Your task to perform on an android device: see tabs open on other devices in the chrome app Image 0: 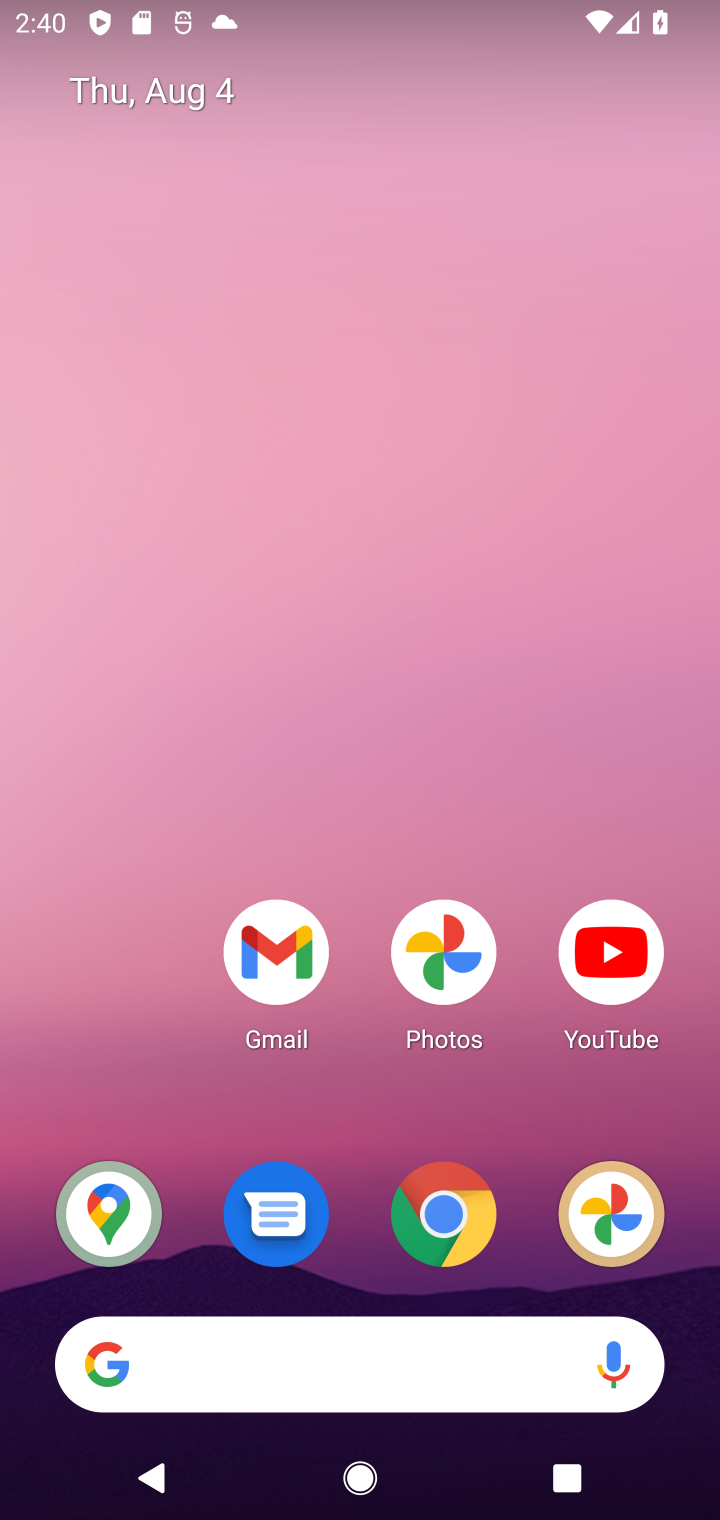
Step 0: drag from (155, 846) to (147, 58)
Your task to perform on an android device: see tabs open on other devices in the chrome app Image 1: 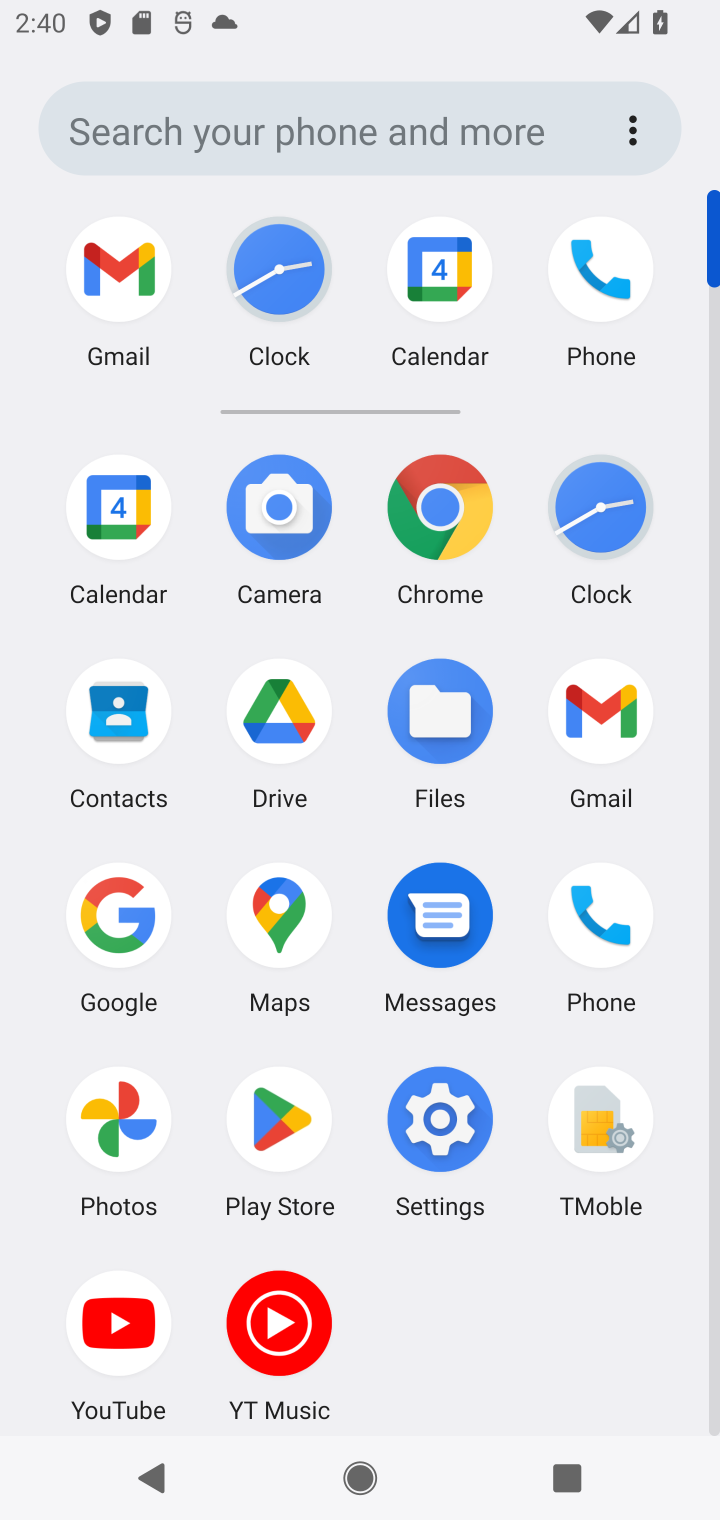
Step 1: click (438, 510)
Your task to perform on an android device: see tabs open on other devices in the chrome app Image 2: 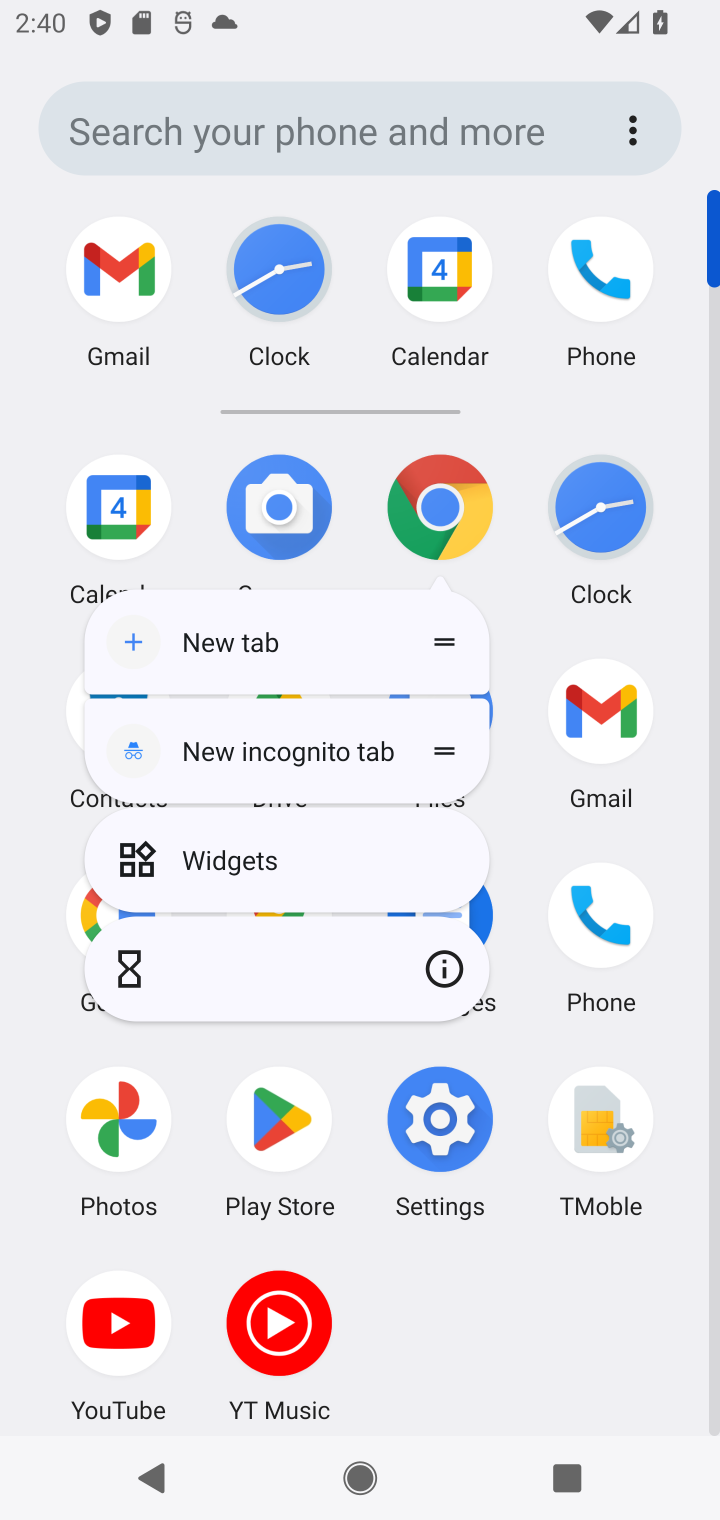
Step 2: click (438, 510)
Your task to perform on an android device: see tabs open on other devices in the chrome app Image 3: 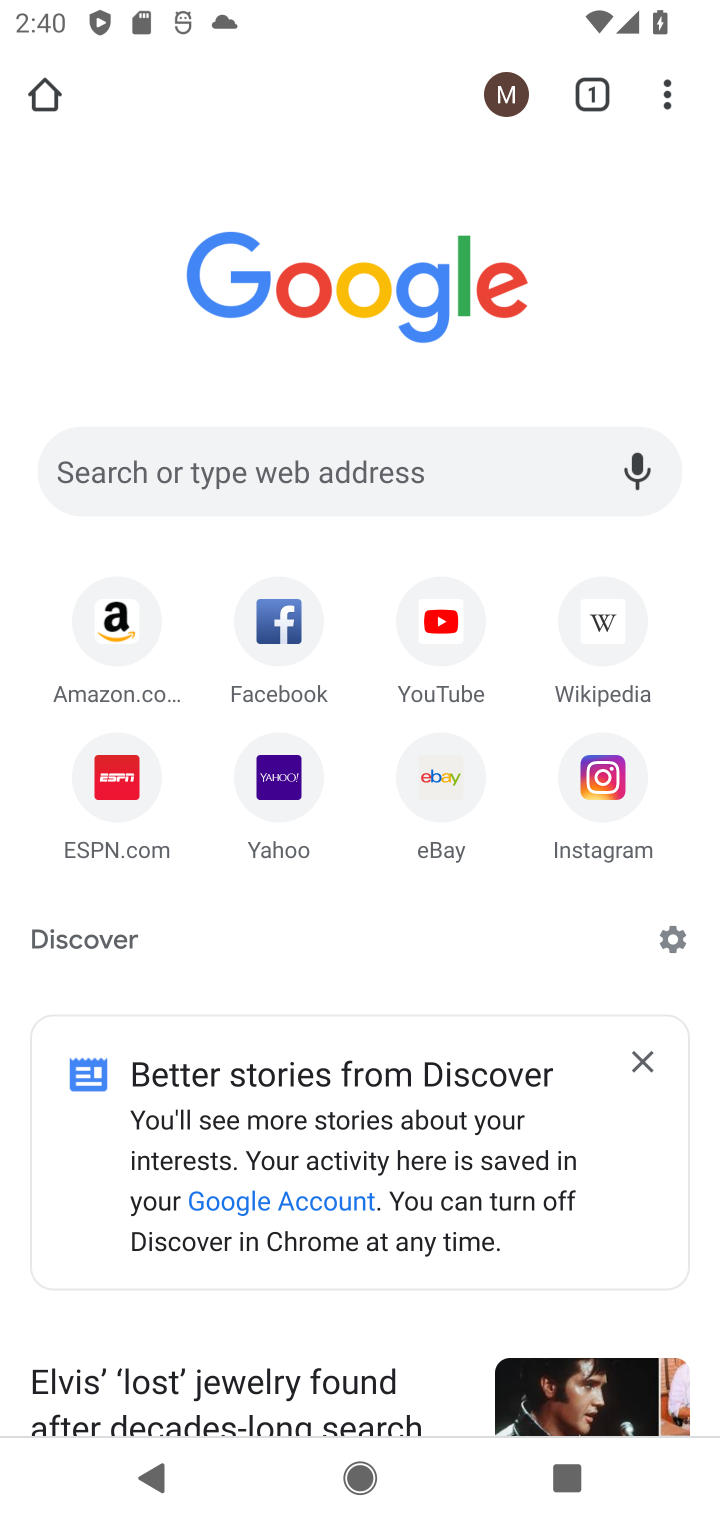
Step 3: task complete